Your task to perform on an android device: turn pop-ups on in chrome Image 0: 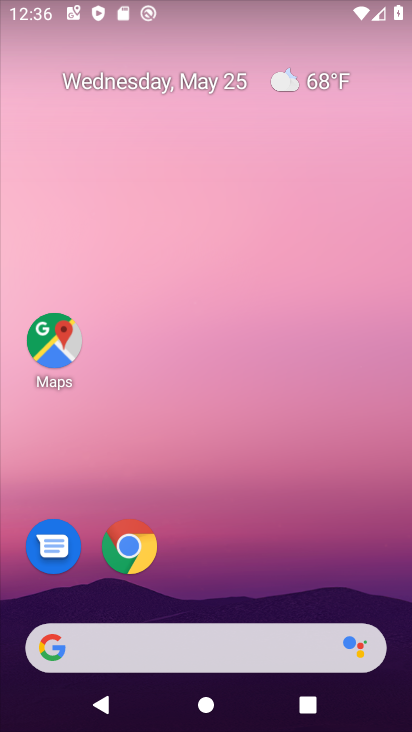
Step 0: drag from (275, 560) to (262, 234)
Your task to perform on an android device: turn pop-ups on in chrome Image 1: 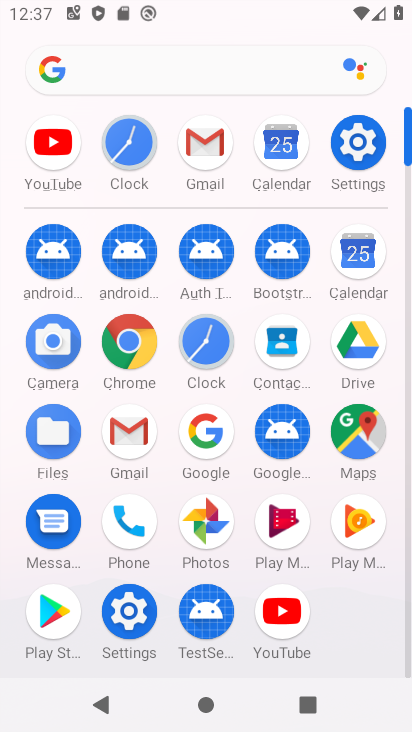
Step 1: click (118, 358)
Your task to perform on an android device: turn pop-ups on in chrome Image 2: 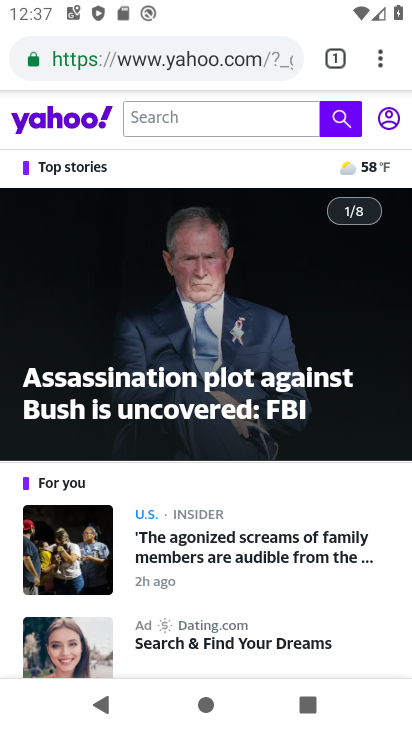
Step 2: click (381, 67)
Your task to perform on an android device: turn pop-ups on in chrome Image 3: 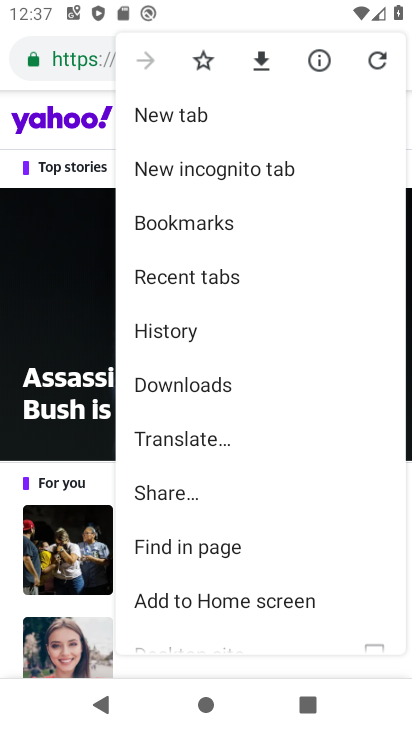
Step 3: drag from (236, 542) to (239, 337)
Your task to perform on an android device: turn pop-ups on in chrome Image 4: 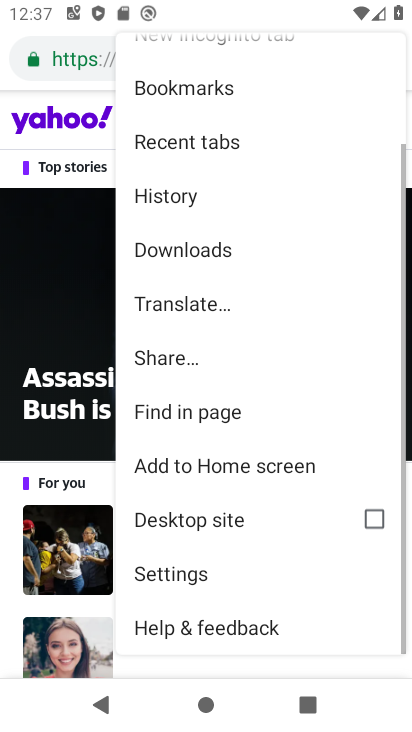
Step 4: click (219, 567)
Your task to perform on an android device: turn pop-ups on in chrome Image 5: 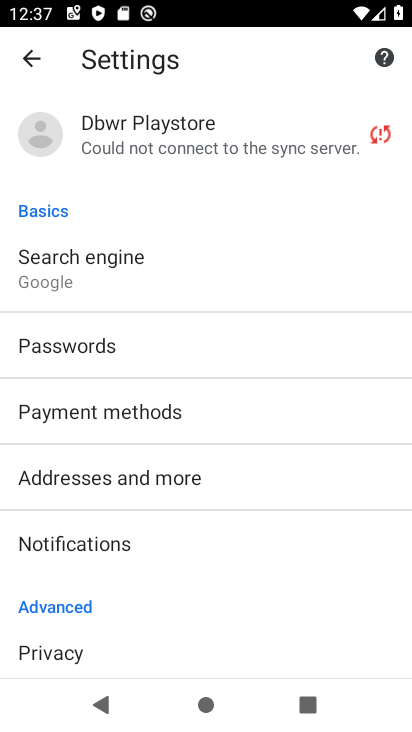
Step 5: drag from (253, 592) to (259, 378)
Your task to perform on an android device: turn pop-ups on in chrome Image 6: 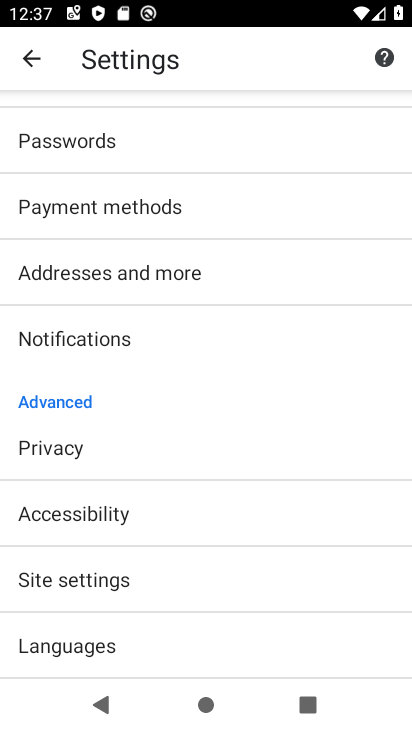
Step 6: click (176, 591)
Your task to perform on an android device: turn pop-ups on in chrome Image 7: 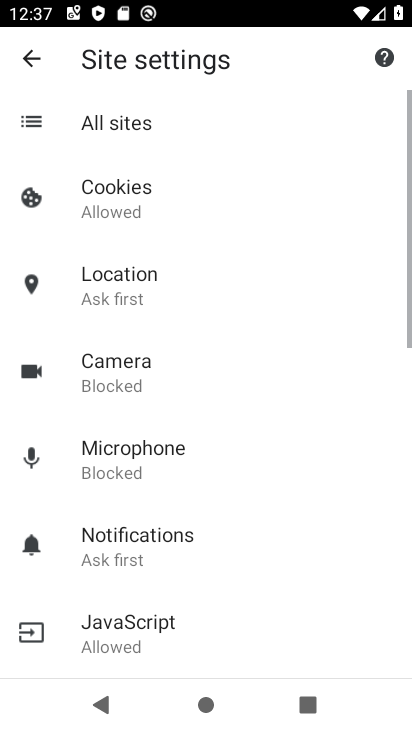
Step 7: drag from (201, 625) to (199, 352)
Your task to perform on an android device: turn pop-ups on in chrome Image 8: 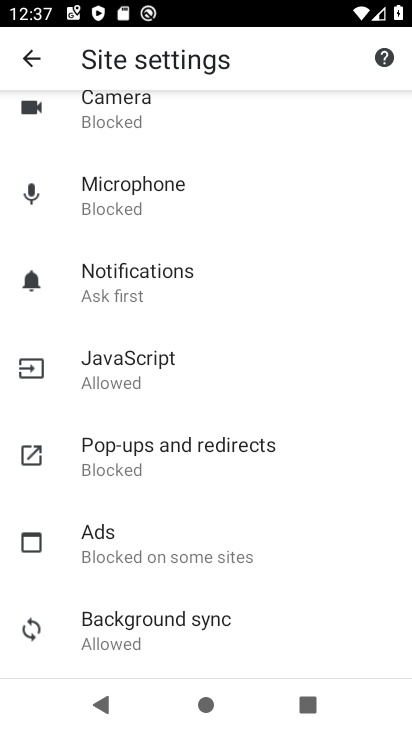
Step 8: click (242, 465)
Your task to perform on an android device: turn pop-ups on in chrome Image 9: 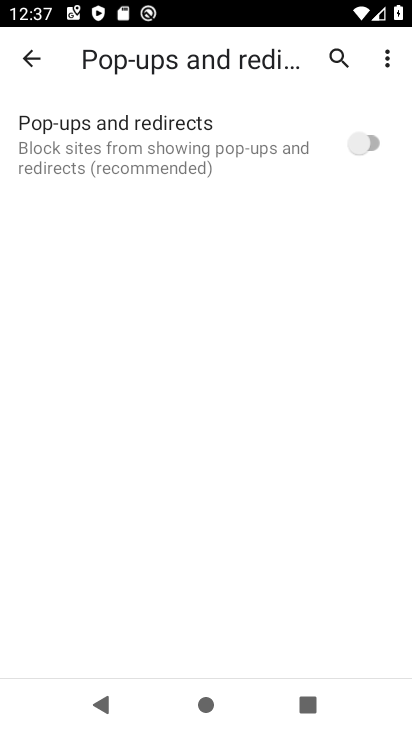
Step 9: click (374, 125)
Your task to perform on an android device: turn pop-ups on in chrome Image 10: 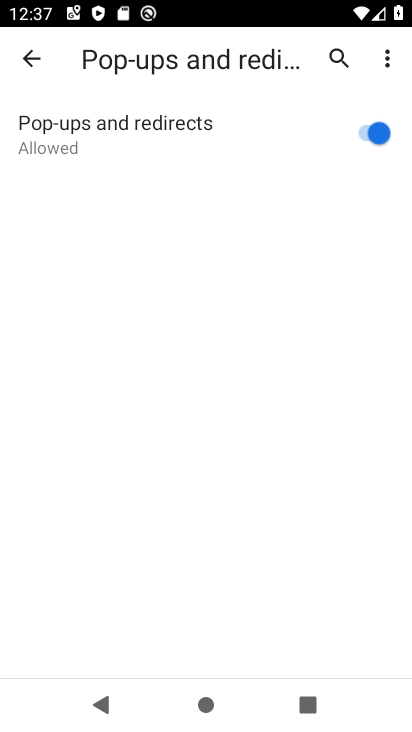
Step 10: task complete